Your task to perform on an android device: turn off data saver in the chrome app Image 0: 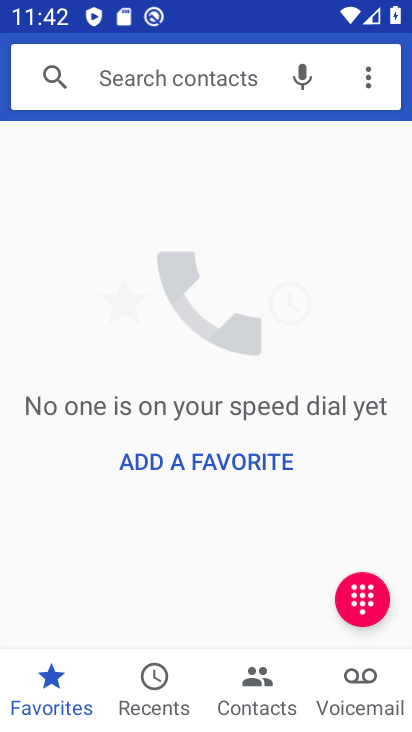
Step 0: press home button
Your task to perform on an android device: turn off data saver in the chrome app Image 1: 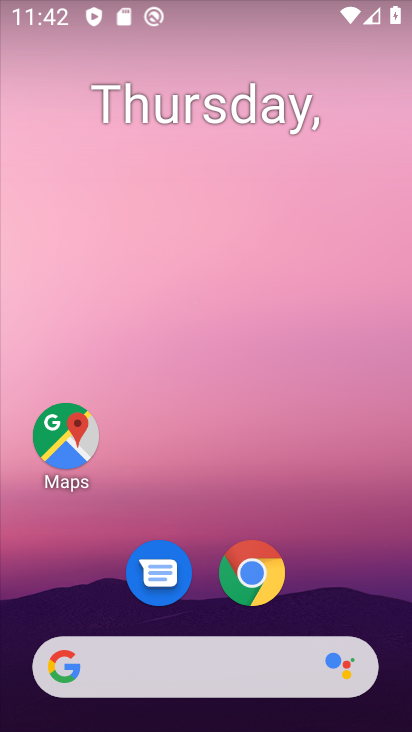
Step 1: click (254, 577)
Your task to perform on an android device: turn off data saver in the chrome app Image 2: 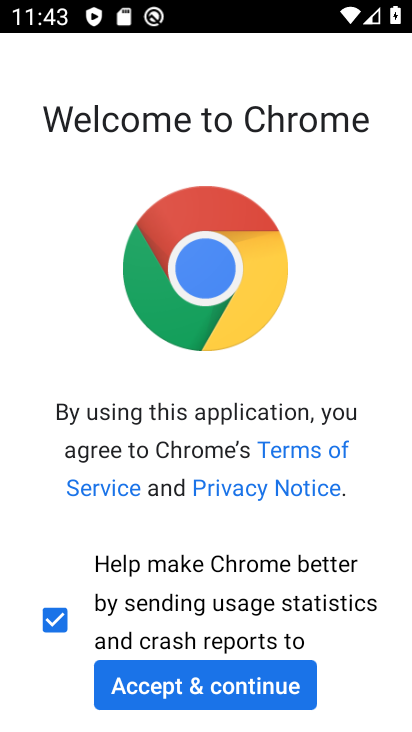
Step 2: click (284, 669)
Your task to perform on an android device: turn off data saver in the chrome app Image 3: 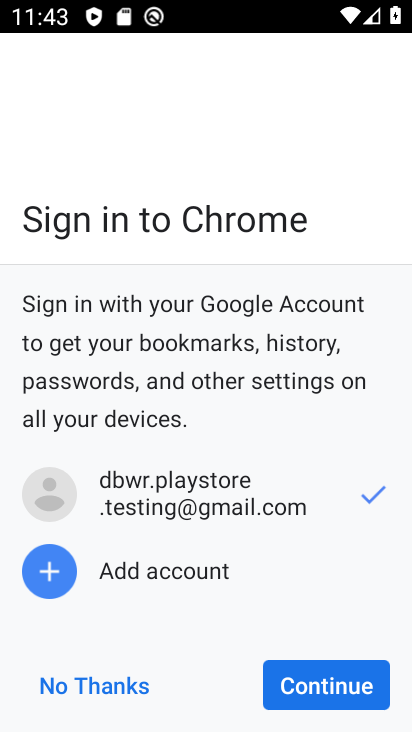
Step 3: click (298, 681)
Your task to perform on an android device: turn off data saver in the chrome app Image 4: 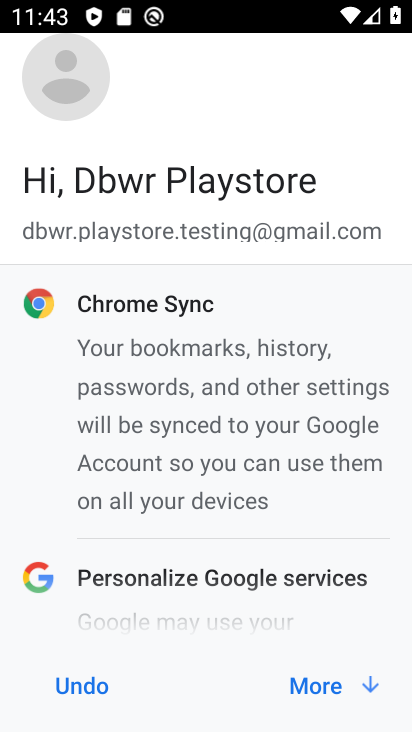
Step 4: click (298, 681)
Your task to perform on an android device: turn off data saver in the chrome app Image 5: 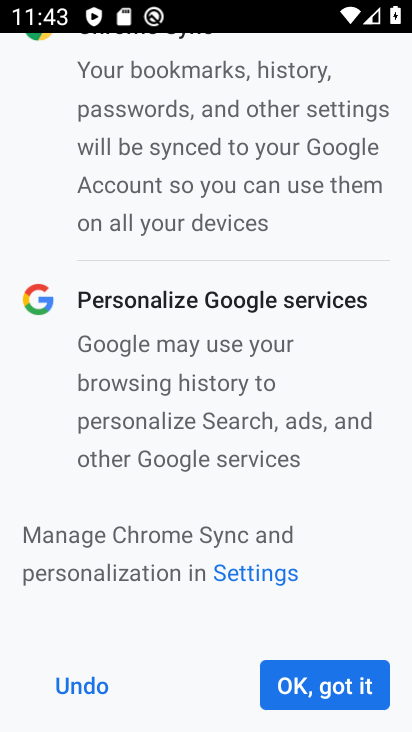
Step 5: click (304, 667)
Your task to perform on an android device: turn off data saver in the chrome app Image 6: 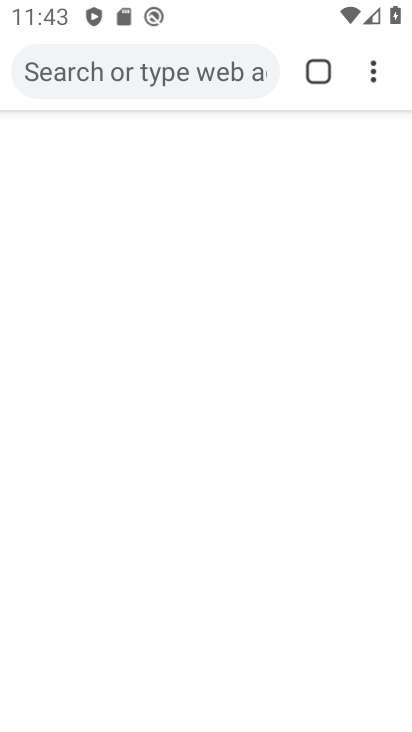
Step 6: click (373, 65)
Your task to perform on an android device: turn off data saver in the chrome app Image 7: 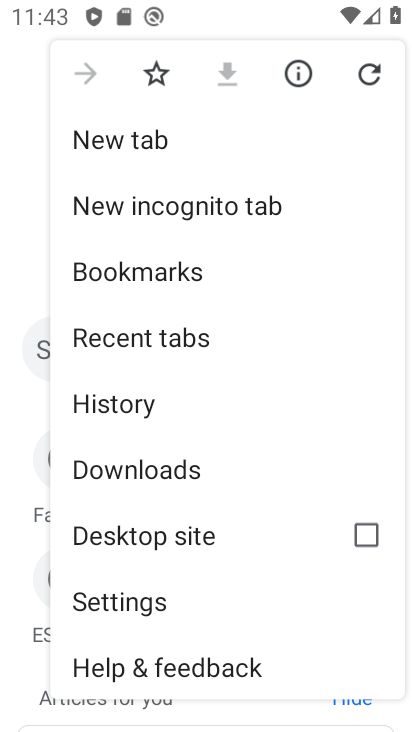
Step 7: click (189, 612)
Your task to perform on an android device: turn off data saver in the chrome app Image 8: 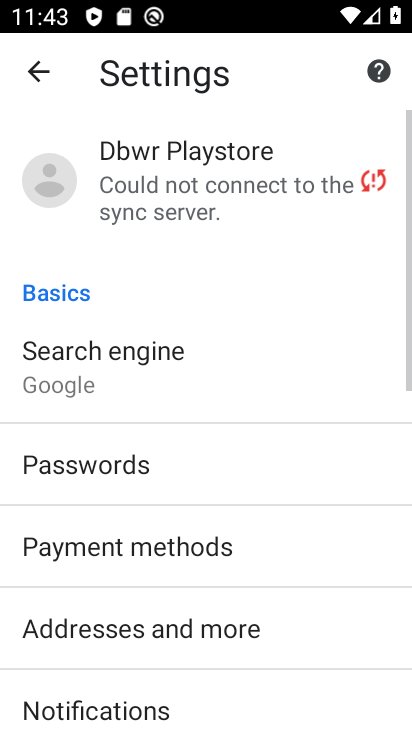
Step 8: drag from (235, 651) to (229, 167)
Your task to perform on an android device: turn off data saver in the chrome app Image 9: 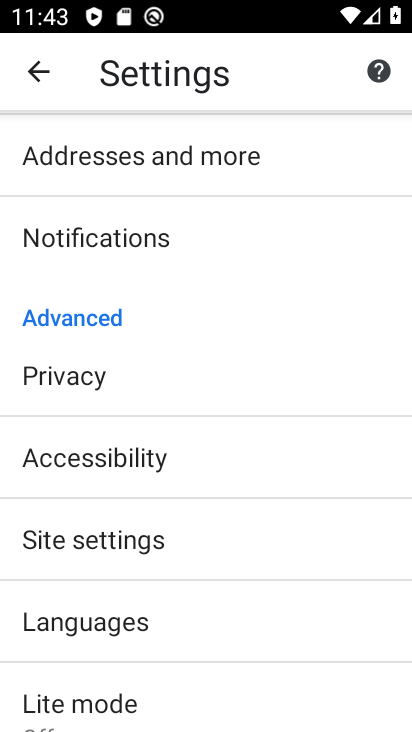
Step 9: click (101, 704)
Your task to perform on an android device: turn off data saver in the chrome app Image 10: 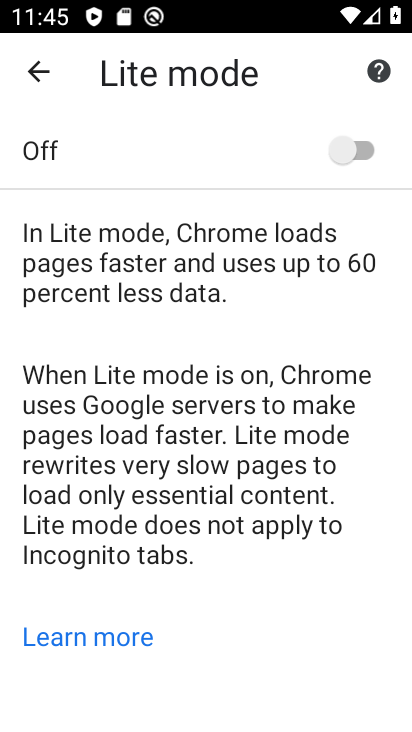
Step 10: task complete